Your task to perform on an android device: change alarm snooze length Image 0: 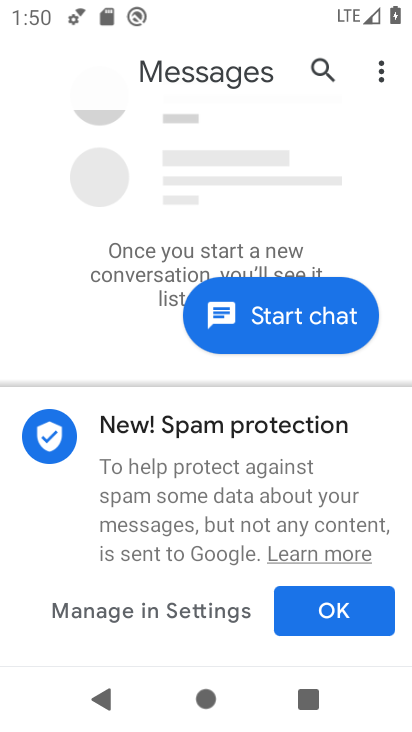
Step 0: press home button
Your task to perform on an android device: change alarm snooze length Image 1: 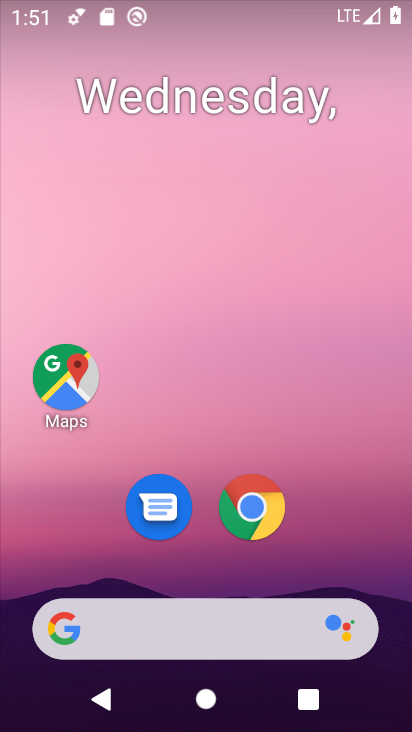
Step 1: drag from (296, 536) to (386, 45)
Your task to perform on an android device: change alarm snooze length Image 2: 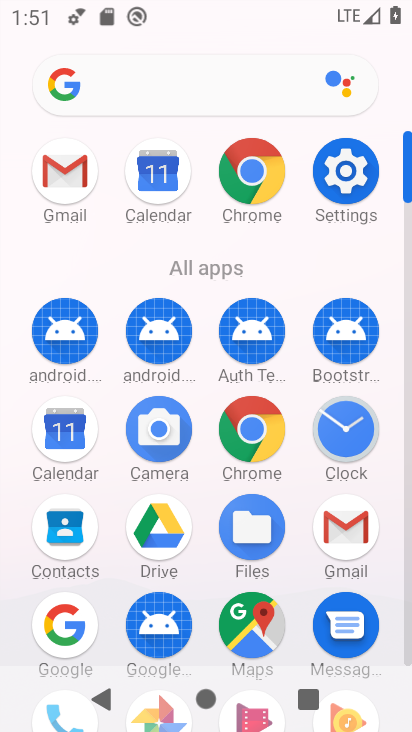
Step 2: click (346, 422)
Your task to perform on an android device: change alarm snooze length Image 3: 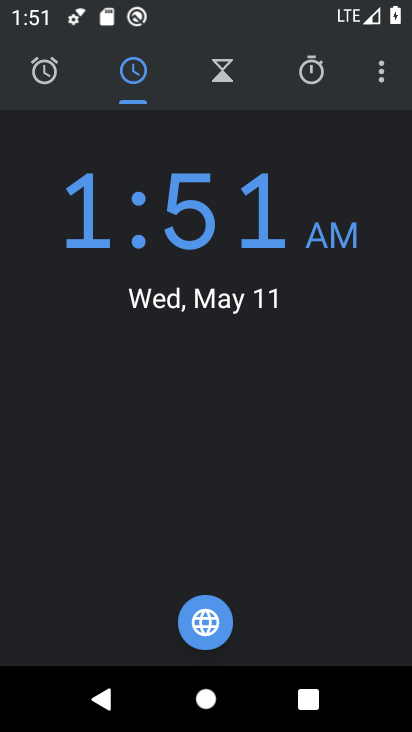
Step 3: click (372, 82)
Your task to perform on an android device: change alarm snooze length Image 4: 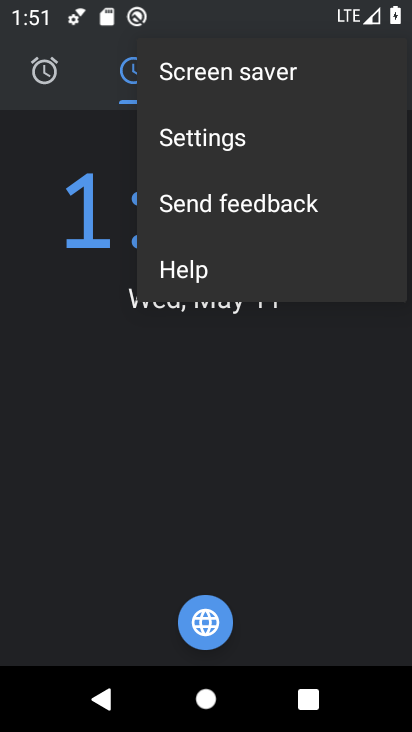
Step 4: click (298, 131)
Your task to perform on an android device: change alarm snooze length Image 5: 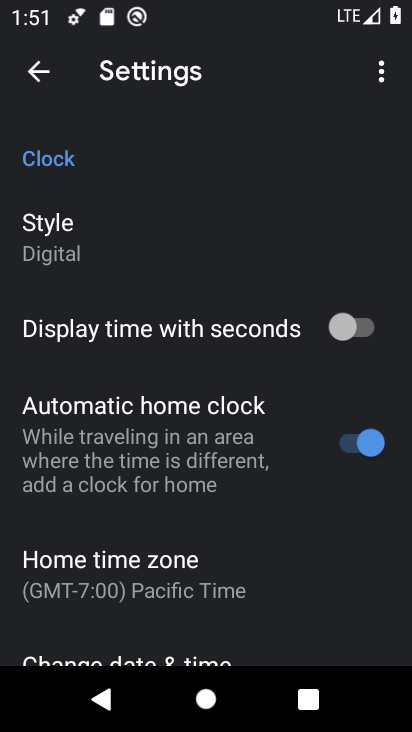
Step 5: drag from (264, 598) to (285, 385)
Your task to perform on an android device: change alarm snooze length Image 6: 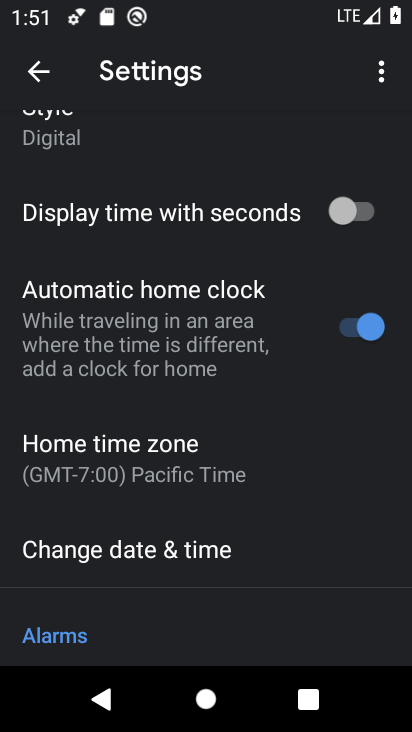
Step 6: drag from (289, 532) to (278, 262)
Your task to perform on an android device: change alarm snooze length Image 7: 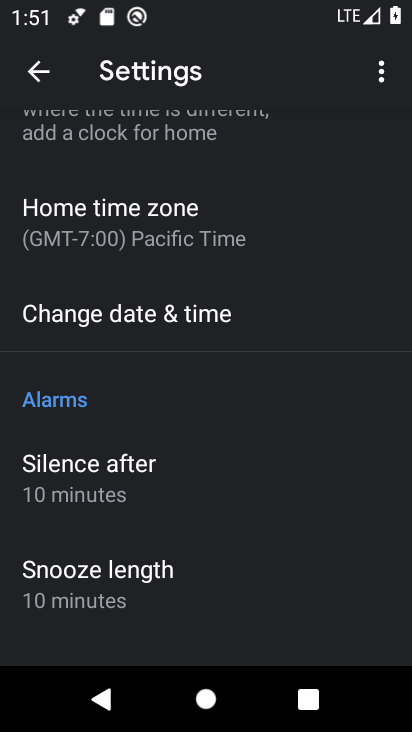
Step 7: click (165, 567)
Your task to perform on an android device: change alarm snooze length Image 8: 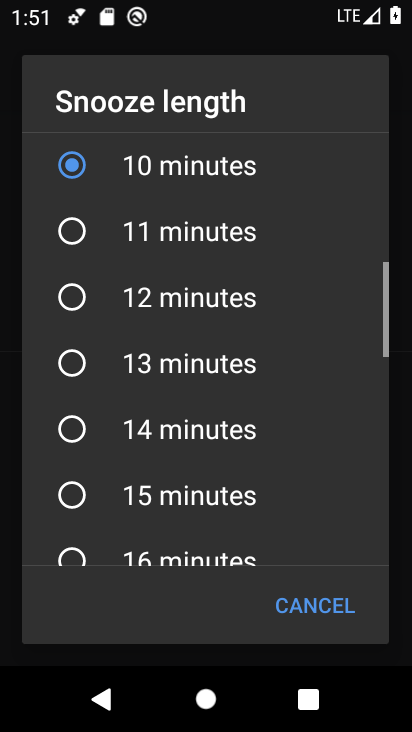
Step 8: drag from (270, 234) to (385, 598)
Your task to perform on an android device: change alarm snooze length Image 9: 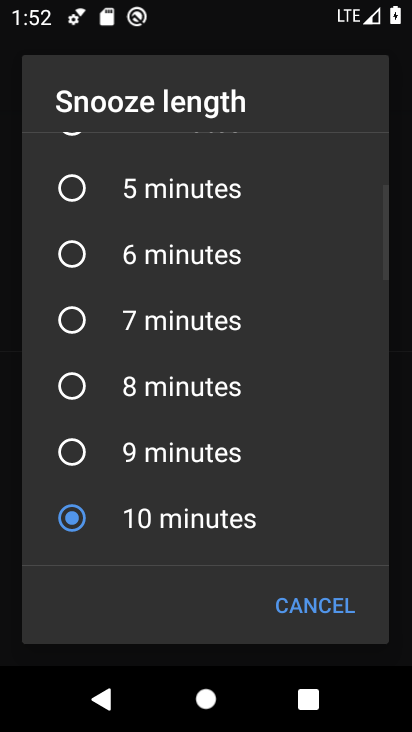
Step 9: click (249, 285)
Your task to perform on an android device: change alarm snooze length Image 10: 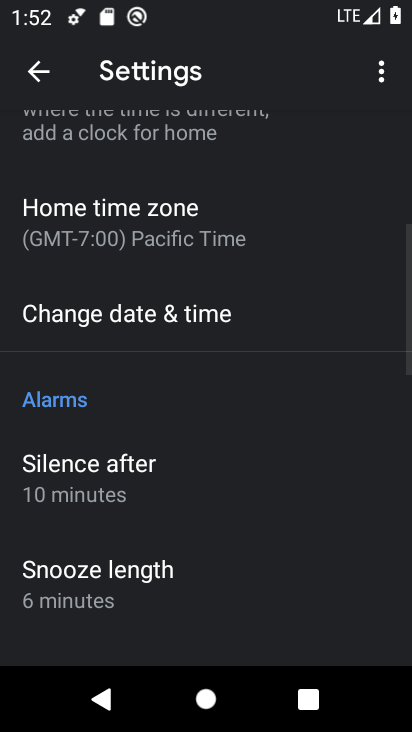
Step 10: task complete